Your task to perform on an android device: turn off improve location accuracy Image 0: 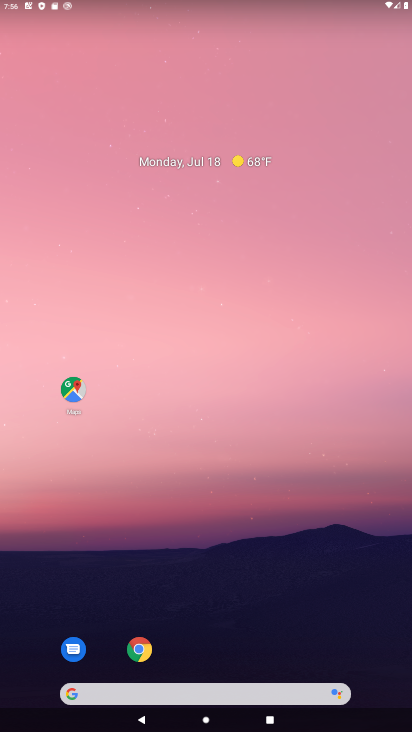
Step 0: drag from (176, 532) to (271, 45)
Your task to perform on an android device: turn off improve location accuracy Image 1: 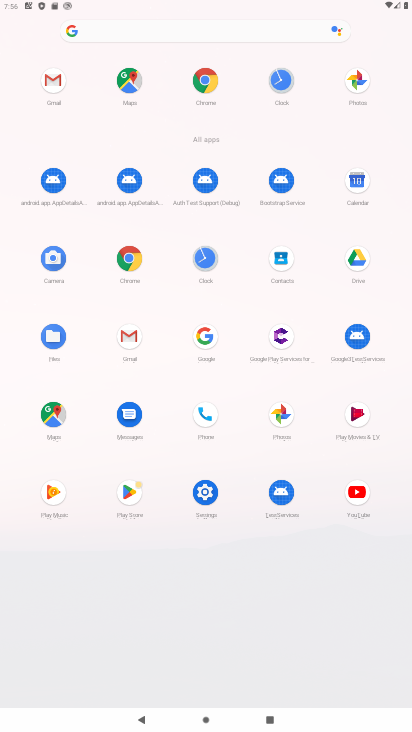
Step 1: click (206, 503)
Your task to perform on an android device: turn off improve location accuracy Image 2: 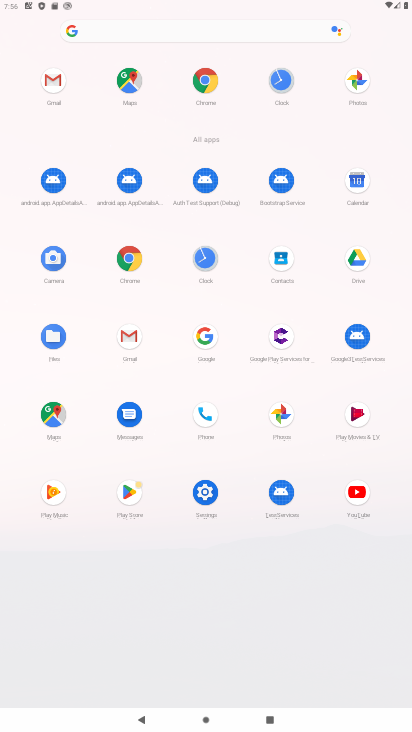
Step 2: click (206, 503)
Your task to perform on an android device: turn off improve location accuracy Image 3: 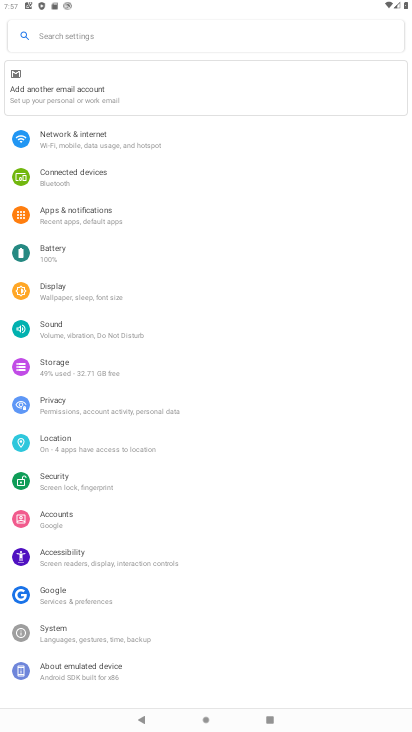
Step 3: click (102, 440)
Your task to perform on an android device: turn off improve location accuracy Image 4: 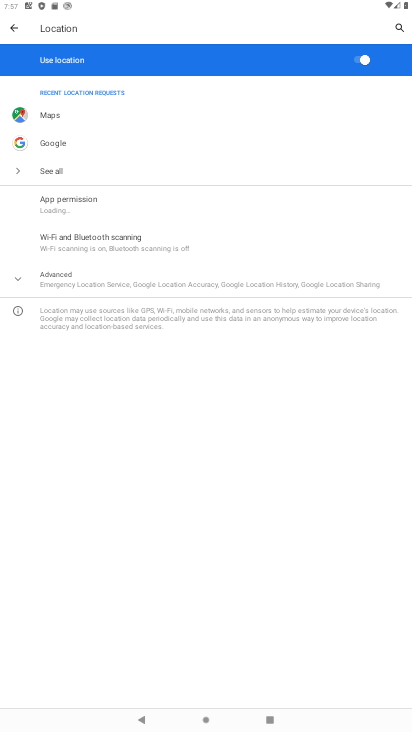
Step 4: click (145, 276)
Your task to perform on an android device: turn off improve location accuracy Image 5: 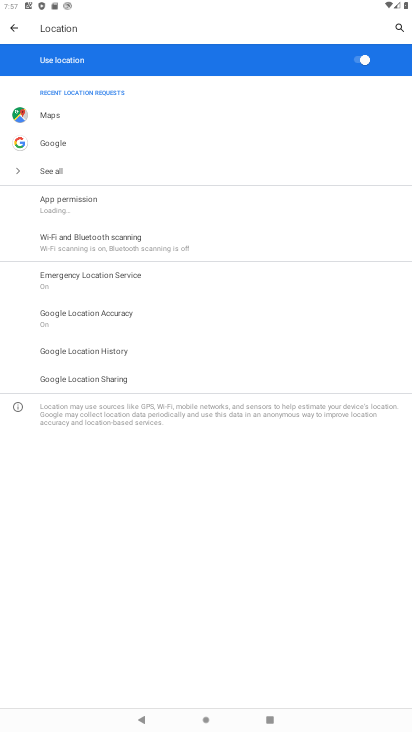
Step 5: click (118, 315)
Your task to perform on an android device: turn off improve location accuracy Image 6: 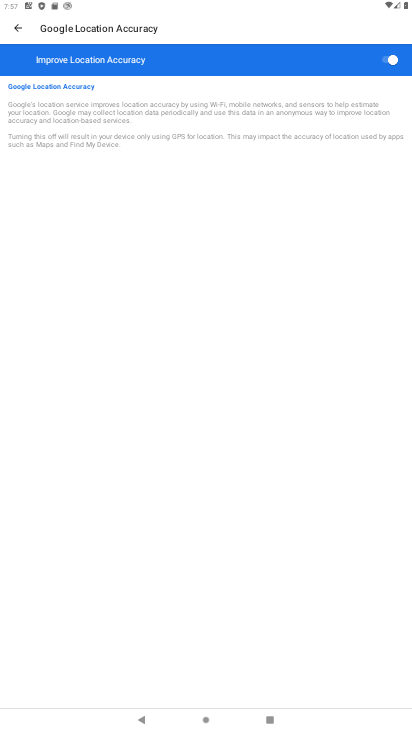
Step 6: click (393, 58)
Your task to perform on an android device: turn off improve location accuracy Image 7: 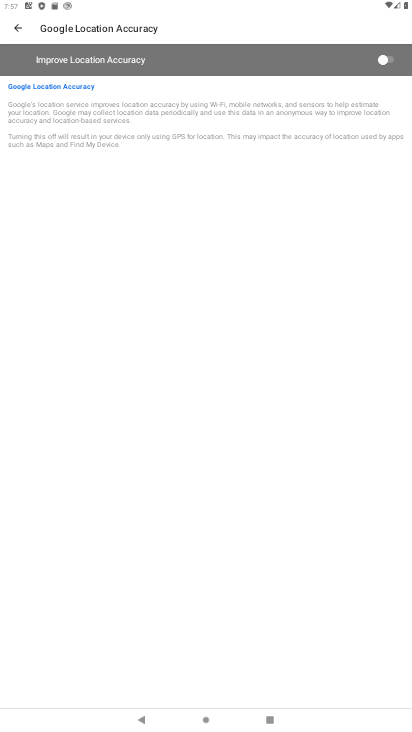
Step 7: task complete